Your task to perform on an android device: see sites visited before in the chrome app Image 0: 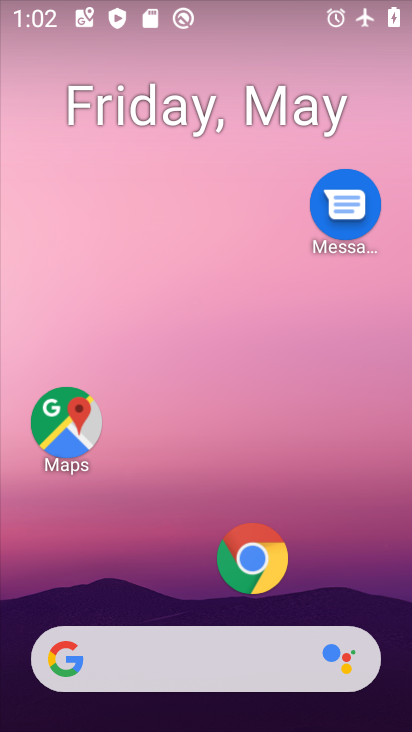
Step 0: drag from (144, 557) to (175, 212)
Your task to perform on an android device: see sites visited before in the chrome app Image 1: 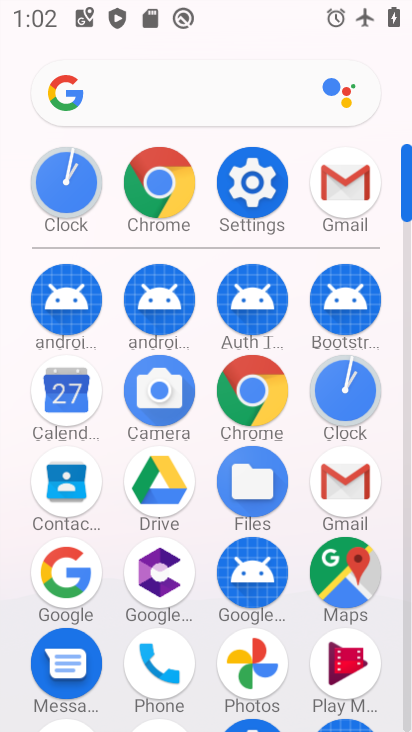
Step 1: click (174, 184)
Your task to perform on an android device: see sites visited before in the chrome app Image 2: 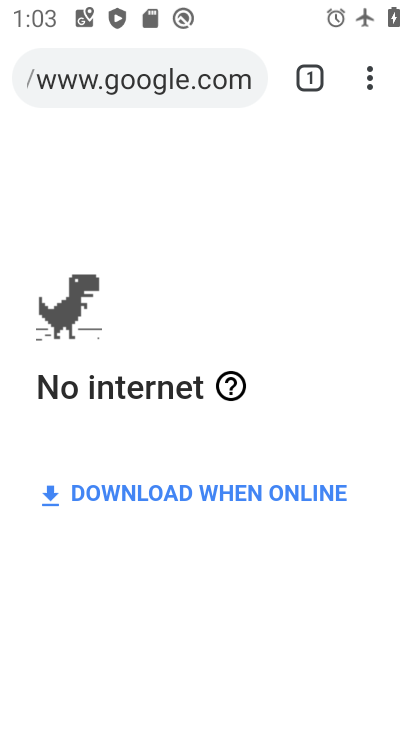
Step 2: click (365, 89)
Your task to perform on an android device: see sites visited before in the chrome app Image 3: 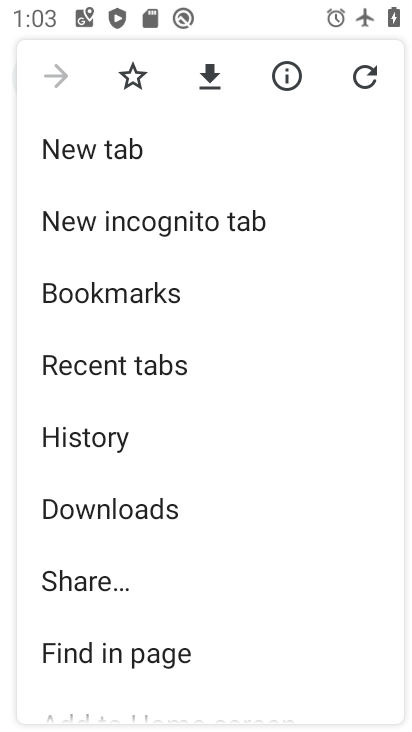
Step 3: click (131, 433)
Your task to perform on an android device: see sites visited before in the chrome app Image 4: 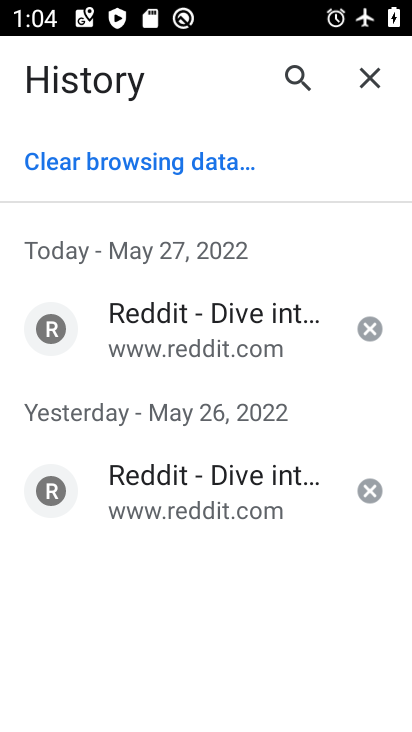
Step 4: task complete